Your task to perform on an android device: turn off notifications in google photos Image 0: 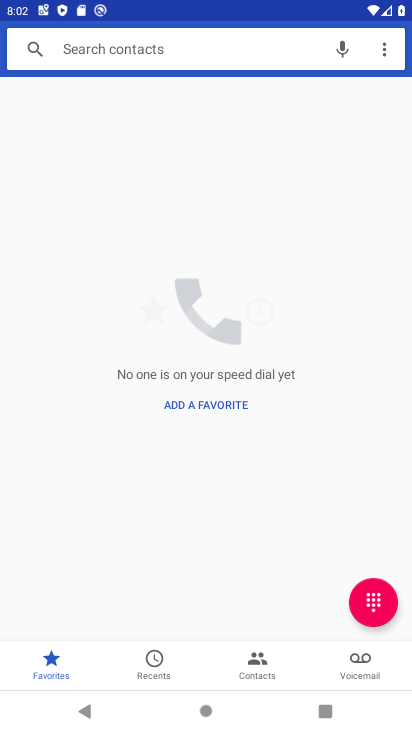
Step 0: press home button
Your task to perform on an android device: turn off notifications in google photos Image 1: 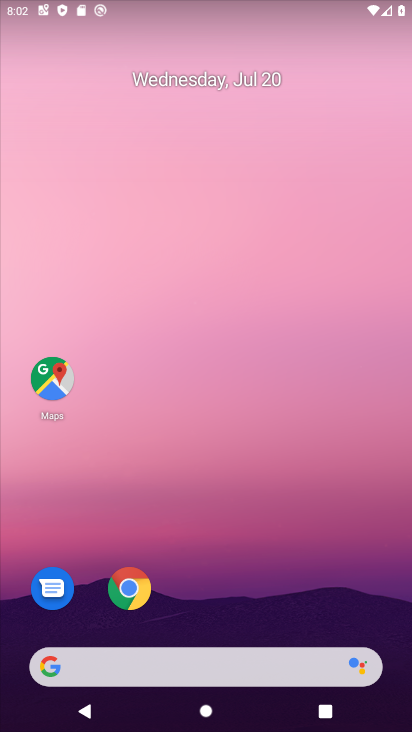
Step 1: drag from (261, 721) to (343, 91)
Your task to perform on an android device: turn off notifications in google photos Image 2: 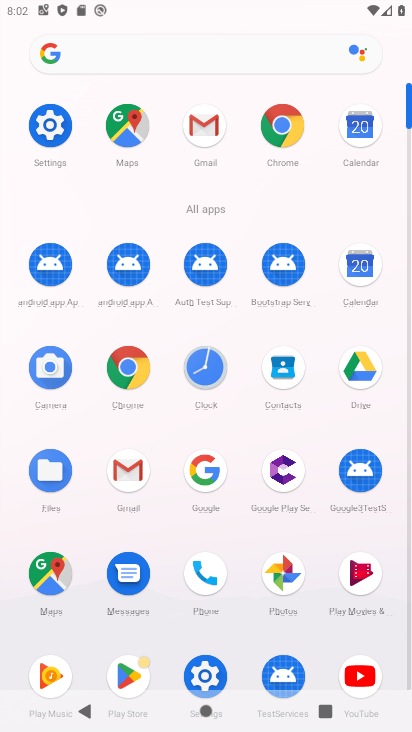
Step 2: click (277, 588)
Your task to perform on an android device: turn off notifications in google photos Image 3: 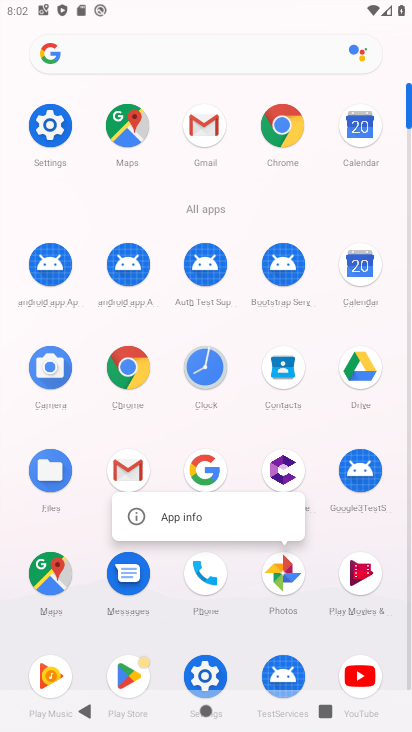
Step 3: click (193, 526)
Your task to perform on an android device: turn off notifications in google photos Image 4: 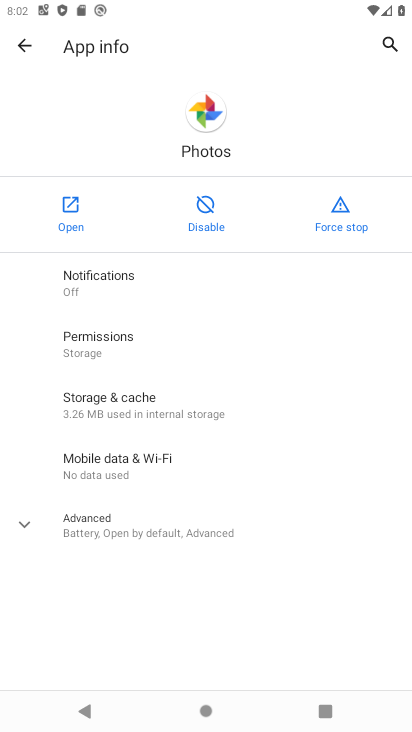
Step 4: click (113, 294)
Your task to perform on an android device: turn off notifications in google photos Image 5: 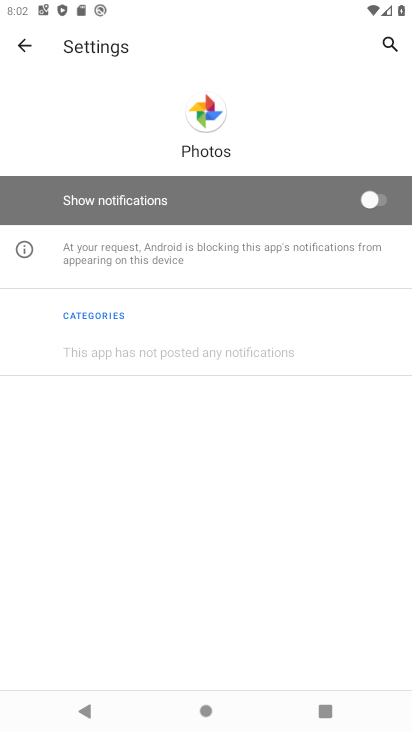
Step 5: task complete